Your task to perform on an android device: What is the news today? Image 0: 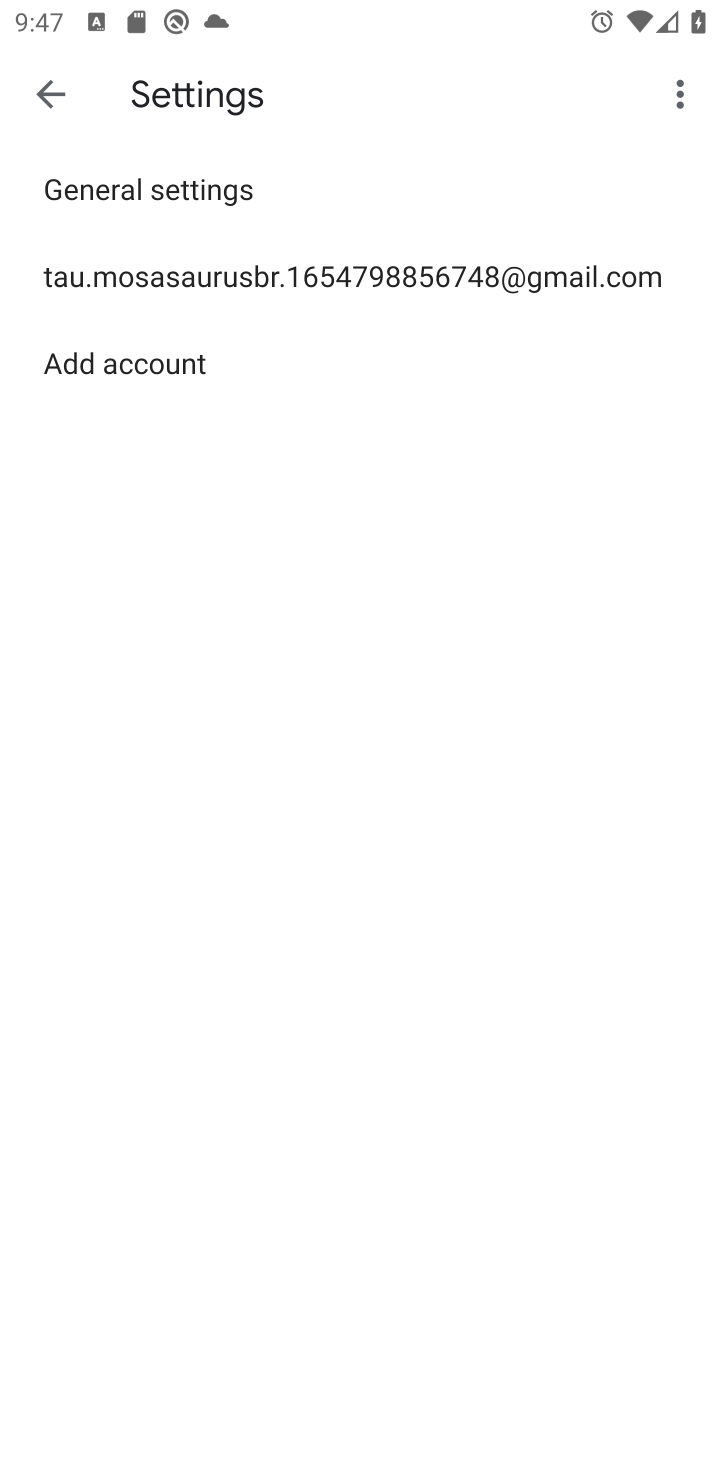
Step 0: press home button
Your task to perform on an android device: What is the news today? Image 1: 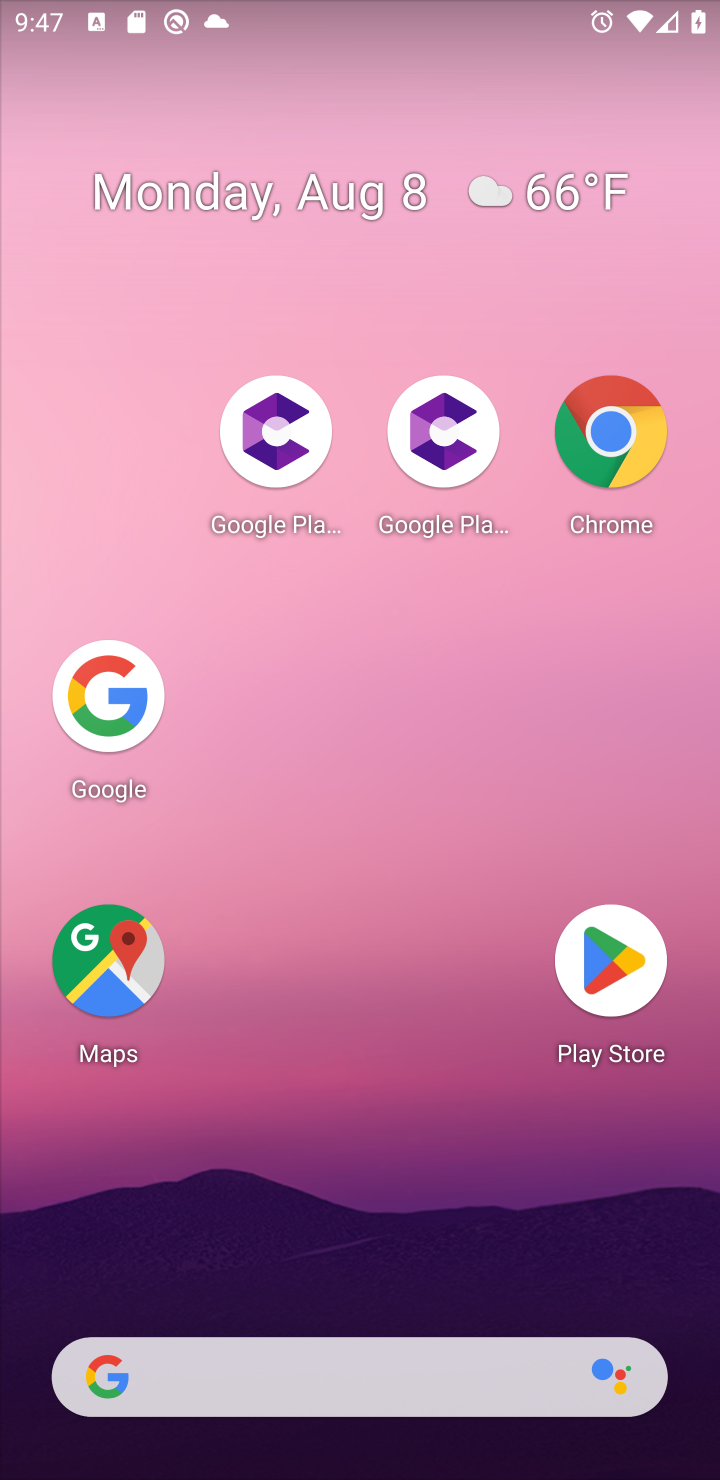
Step 1: click (453, 1383)
Your task to perform on an android device: What is the news today? Image 2: 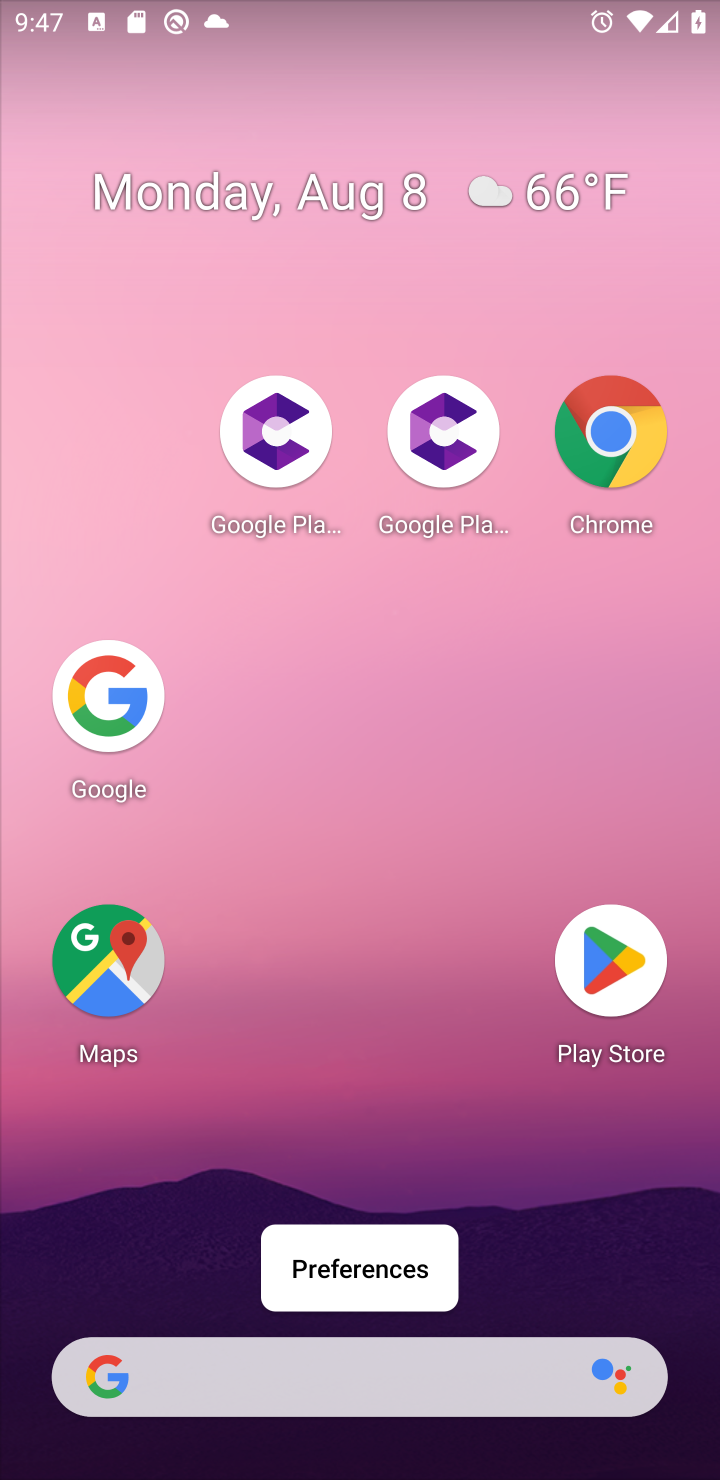
Step 2: click (412, 1401)
Your task to perform on an android device: What is the news today? Image 3: 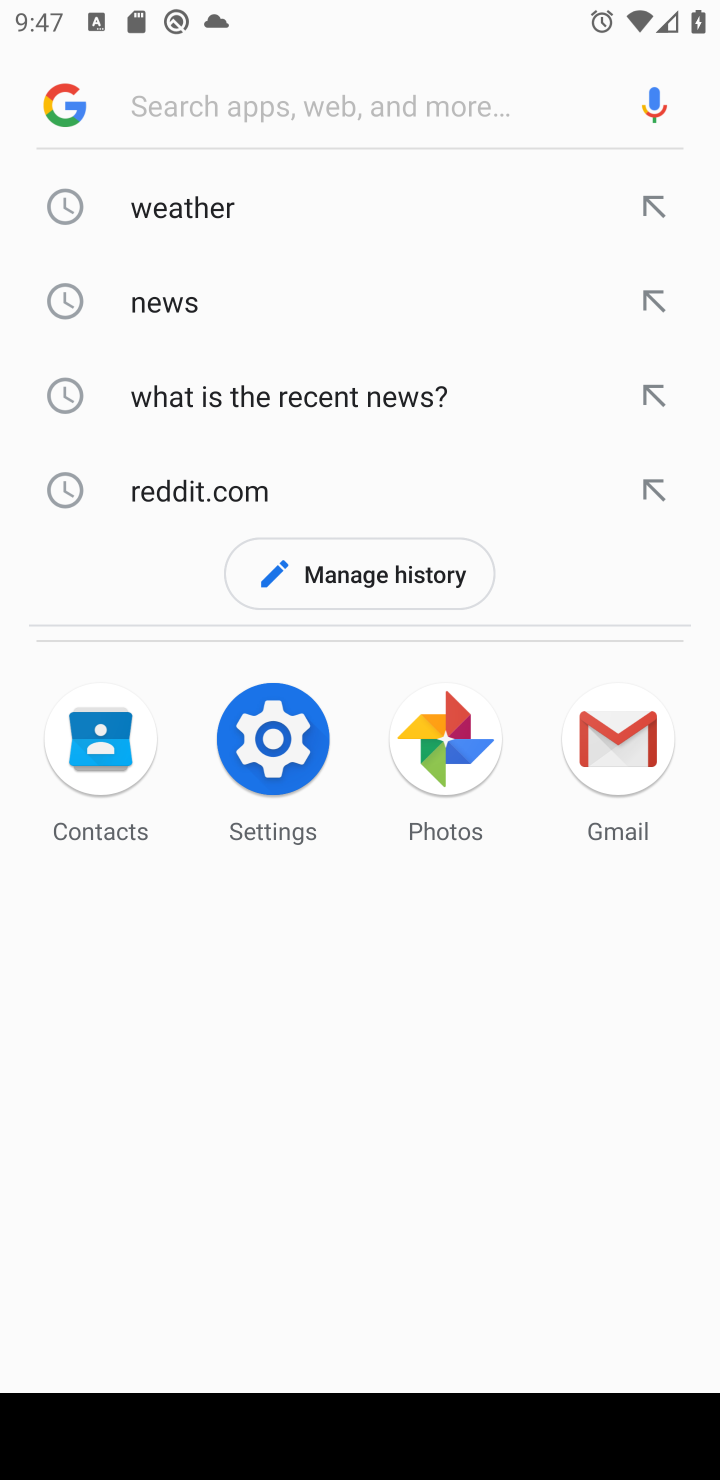
Step 3: click (204, 327)
Your task to perform on an android device: What is the news today? Image 4: 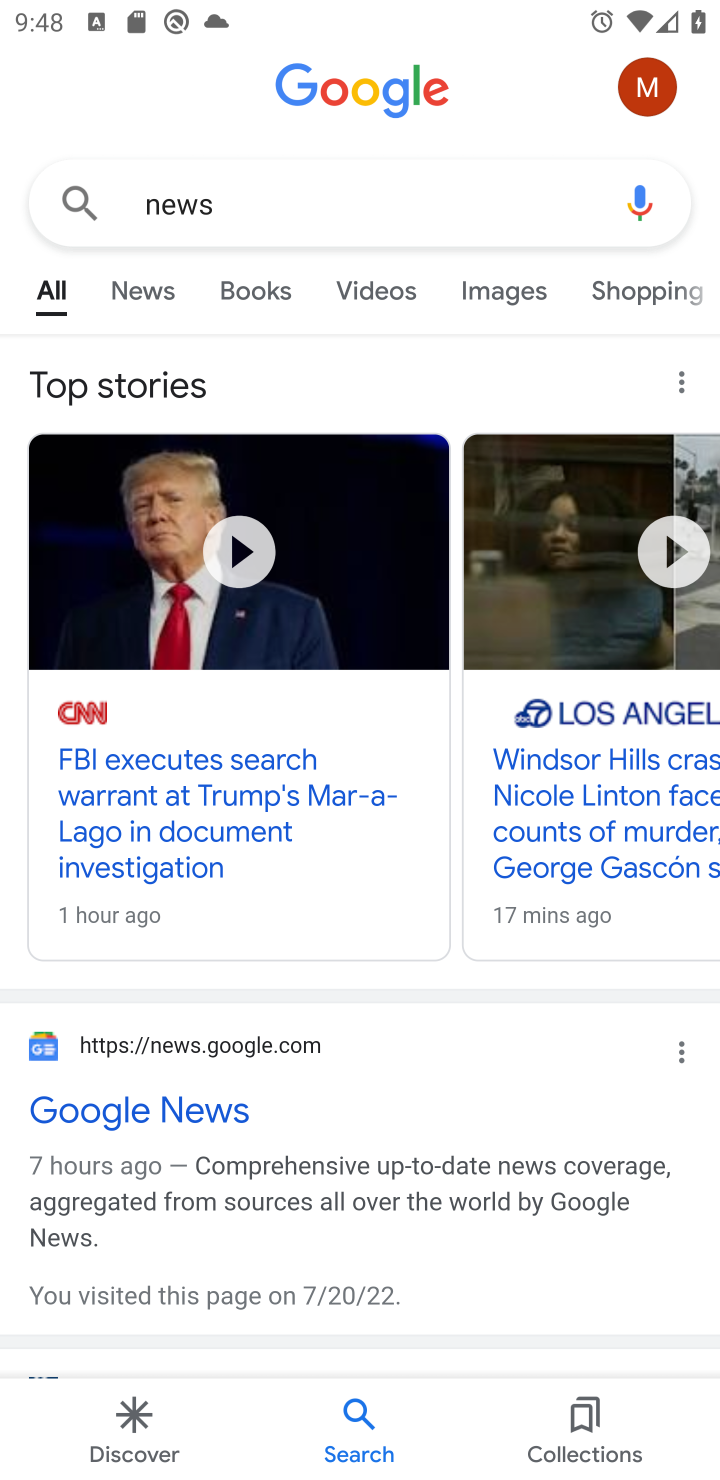
Step 4: task complete